Your task to perform on an android device: Open Yahoo.com Image 0: 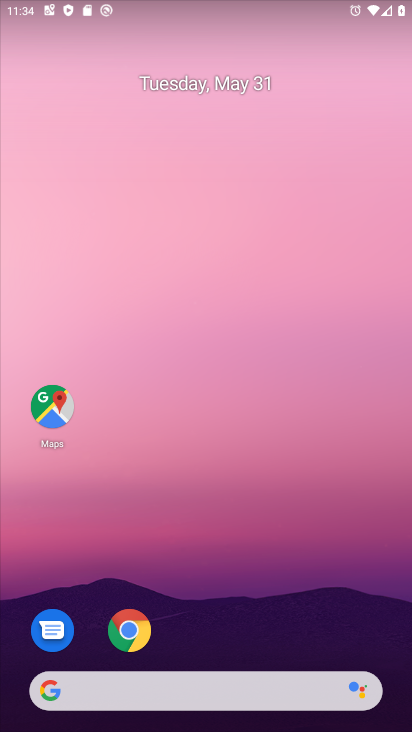
Step 0: click (132, 642)
Your task to perform on an android device: Open Yahoo.com Image 1: 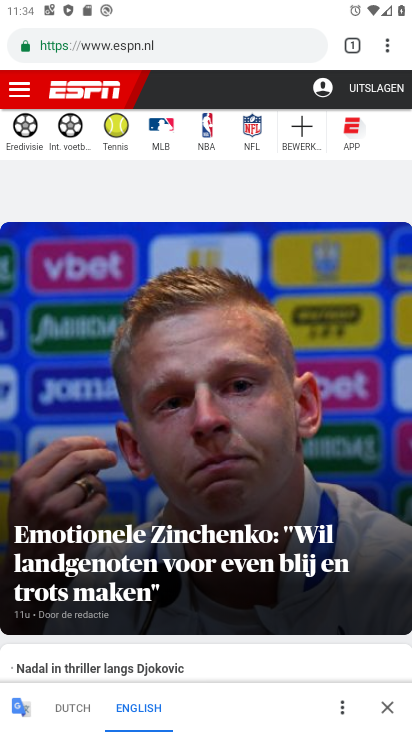
Step 1: click (360, 56)
Your task to perform on an android device: Open Yahoo.com Image 2: 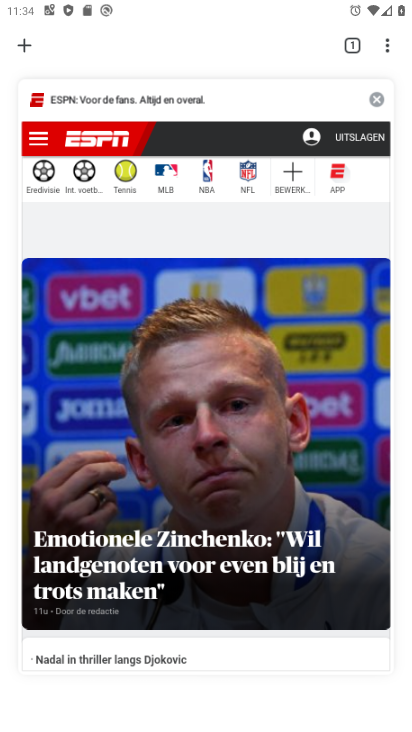
Step 2: click (380, 108)
Your task to perform on an android device: Open Yahoo.com Image 3: 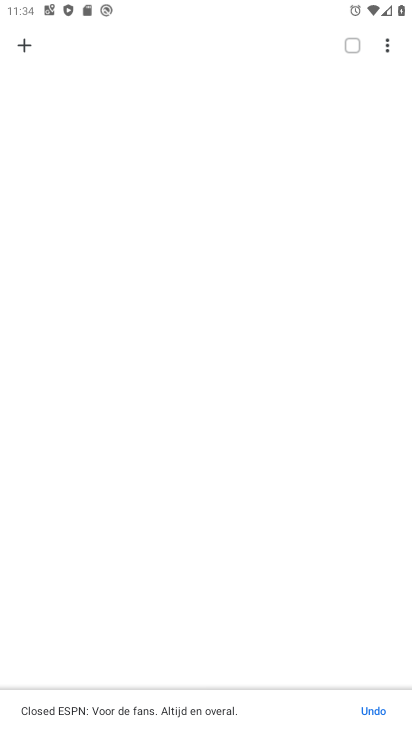
Step 3: click (27, 50)
Your task to perform on an android device: Open Yahoo.com Image 4: 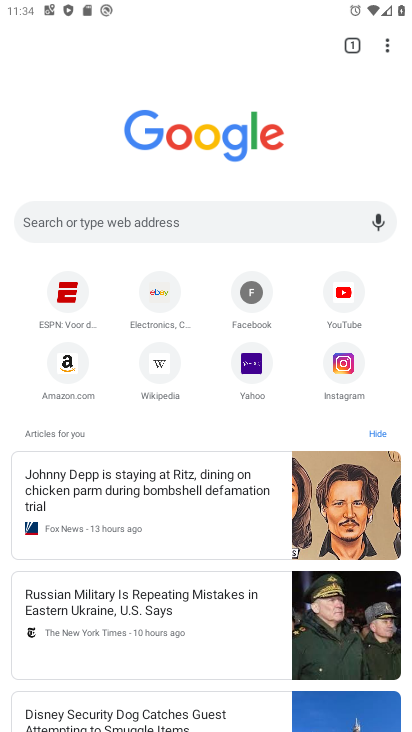
Step 4: click (253, 369)
Your task to perform on an android device: Open Yahoo.com Image 5: 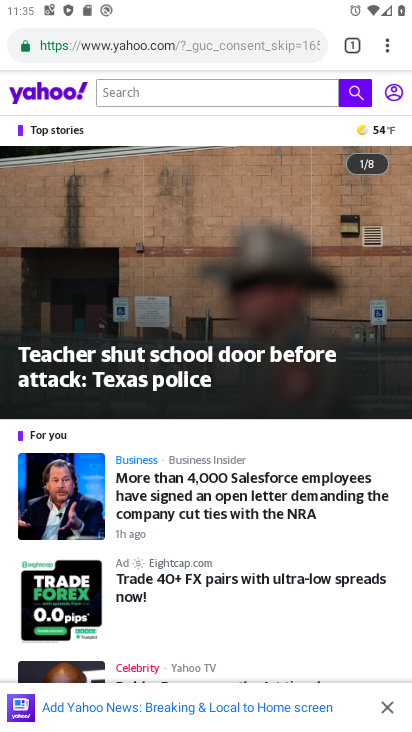
Step 5: task complete